Your task to perform on an android device: check storage Image 0: 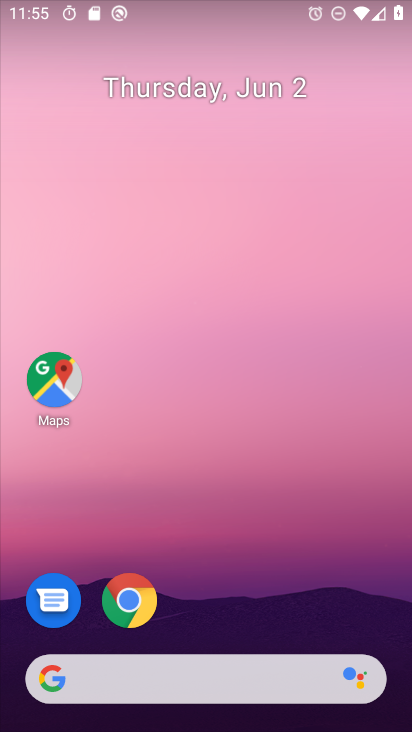
Step 0: drag from (227, 602) to (215, 97)
Your task to perform on an android device: check storage Image 1: 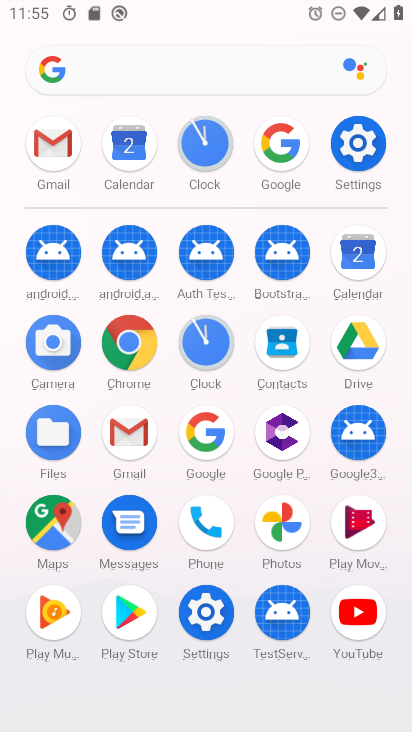
Step 1: click (360, 152)
Your task to perform on an android device: check storage Image 2: 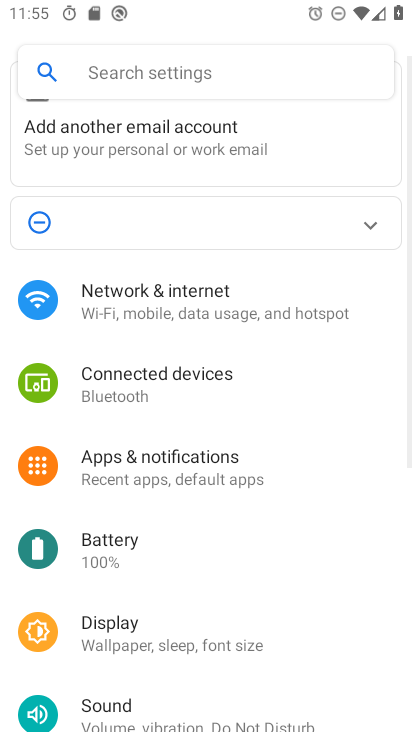
Step 2: drag from (190, 604) to (226, 326)
Your task to perform on an android device: check storage Image 3: 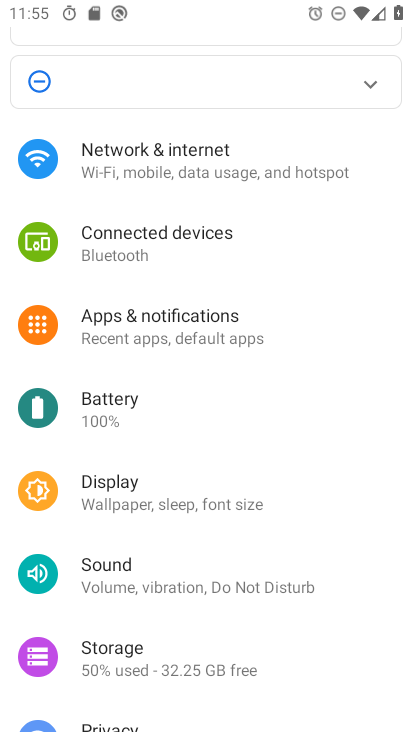
Step 3: click (138, 636)
Your task to perform on an android device: check storage Image 4: 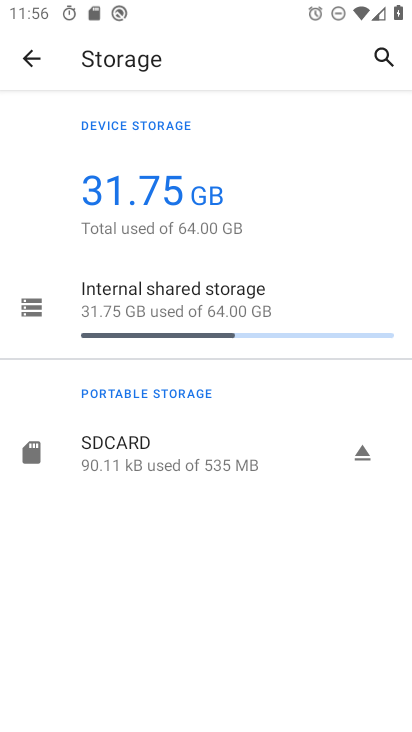
Step 4: task complete